Your task to perform on an android device: Open accessibility settings Image 0: 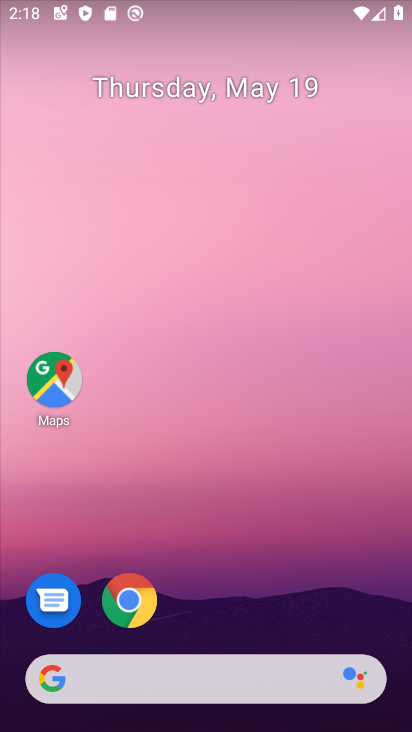
Step 0: drag from (204, 593) to (226, 247)
Your task to perform on an android device: Open accessibility settings Image 1: 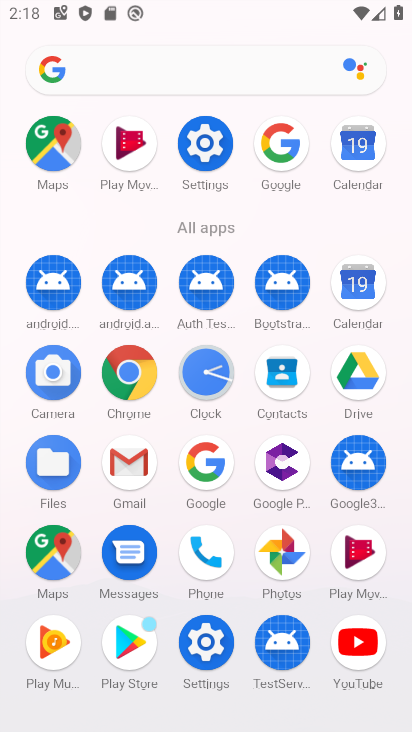
Step 1: click (213, 143)
Your task to perform on an android device: Open accessibility settings Image 2: 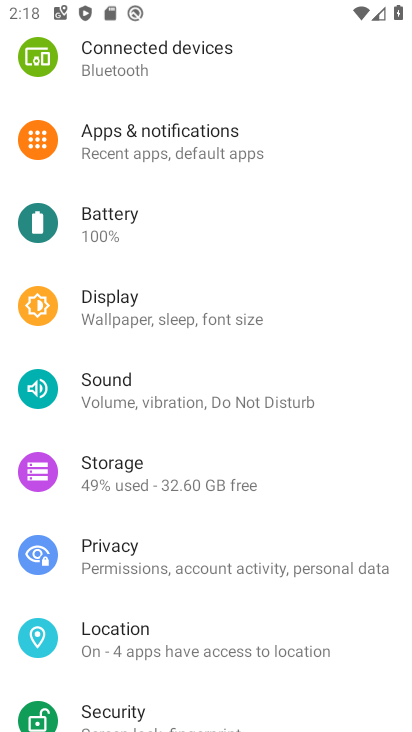
Step 2: drag from (199, 701) to (199, 320)
Your task to perform on an android device: Open accessibility settings Image 3: 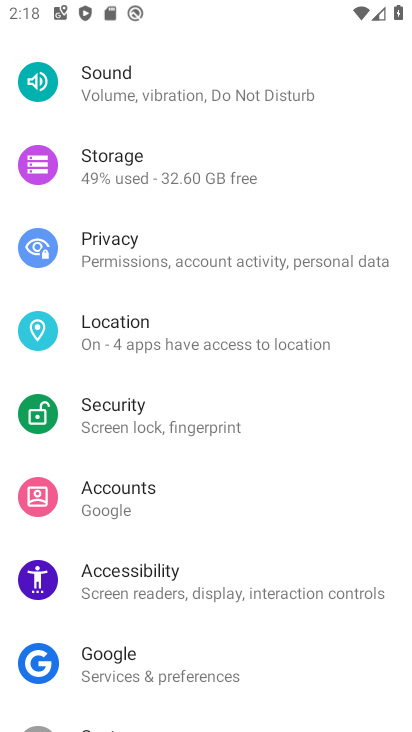
Step 3: click (161, 576)
Your task to perform on an android device: Open accessibility settings Image 4: 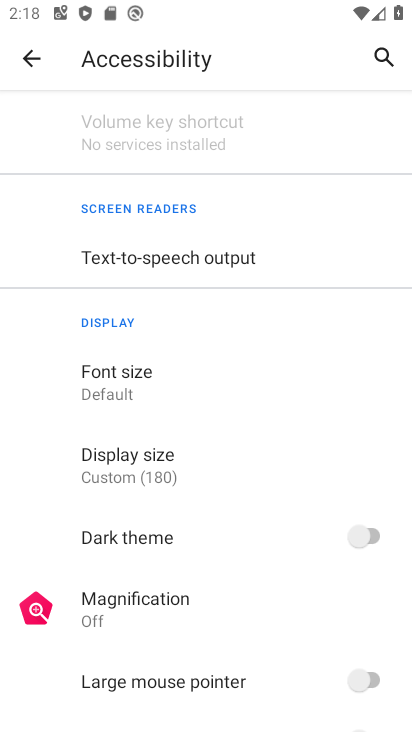
Step 4: task complete